Your task to perform on an android device: check battery use Image 0: 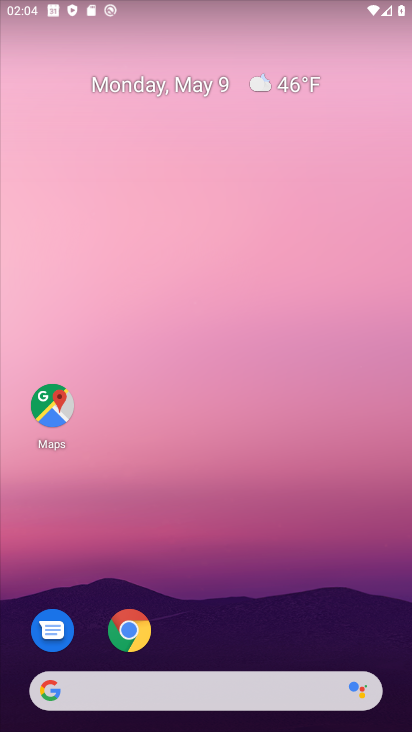
Step 0: drag from (239, 545) to (190, 42)
Your task to perform on an android device: check battery use Image 1: 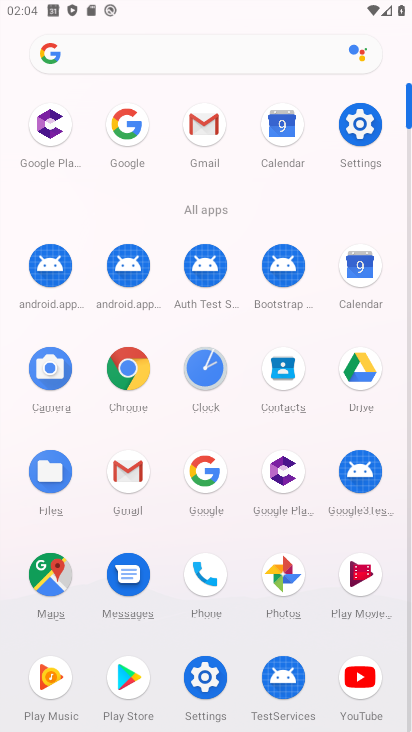
Step 1: click (205, 679)
Your task to perform on an android device: check battery use Image 2: 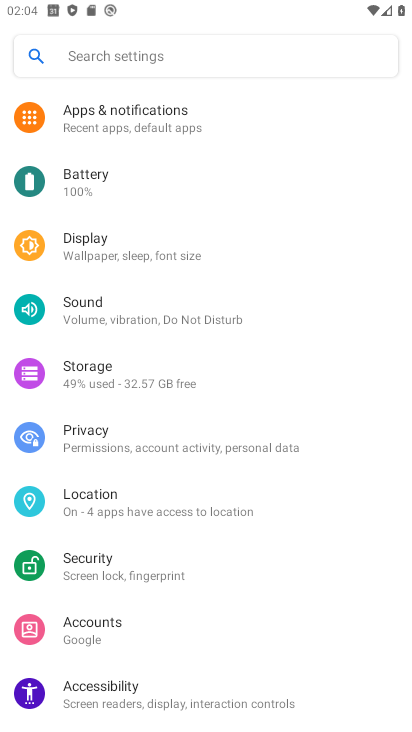
Step 2: click (86, 184)
Your task to perform on an android device: check battery use Image 3: 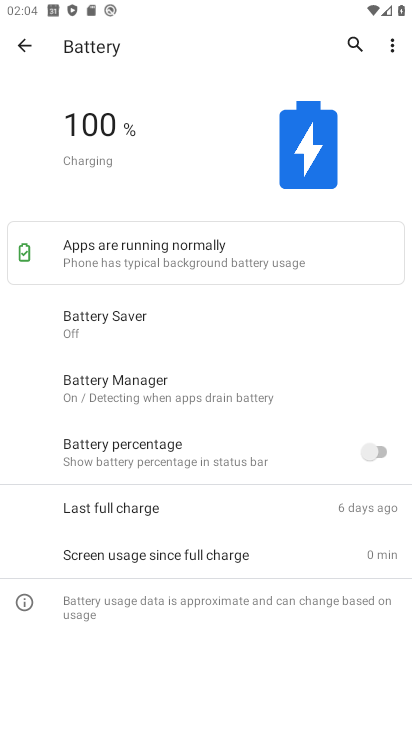
Step 3: click (391, 43)
Your task to perform on an android device: check battery use Image 4: 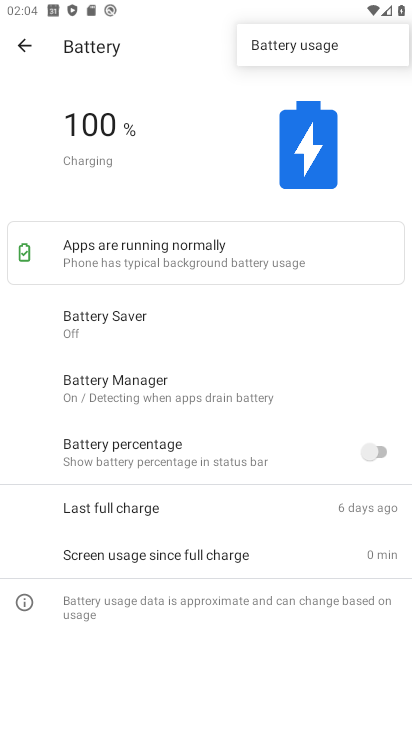
Step 4: click (295, 44)
Your task to perform on an android device: check battery use Image 5: 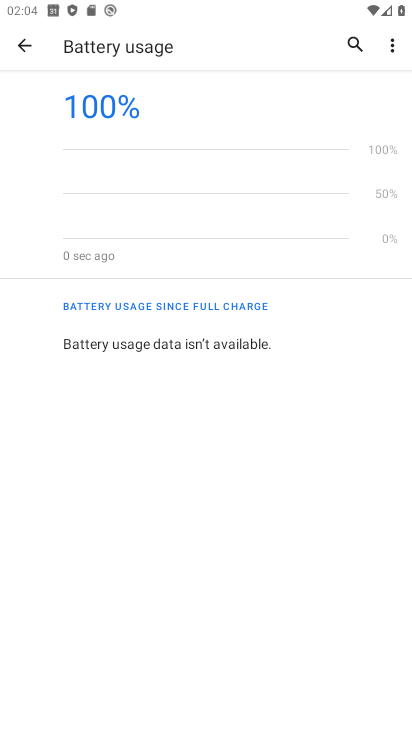
Step 5: task complete